Your task to perform on an android device: Is it going to rain today? Image 0: 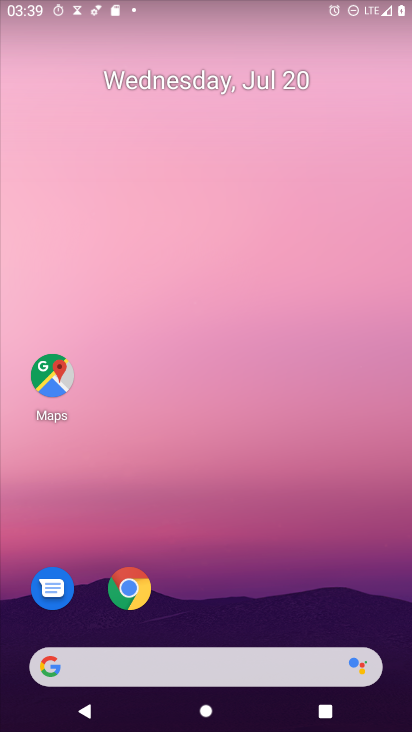
Step 0: drag from (210, 633) to (126, 7)
Your task to perform on an android device: Is it going to rain today? Image 1: 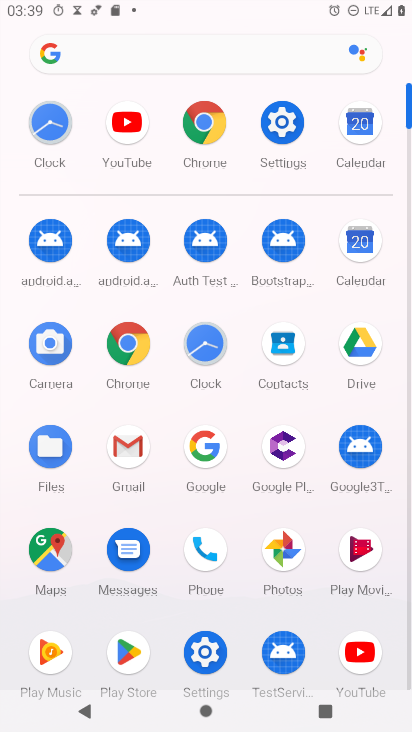
Step 1: click (201, 451)
Your task to perform on an android device: Is it going to rain today? Image 2: 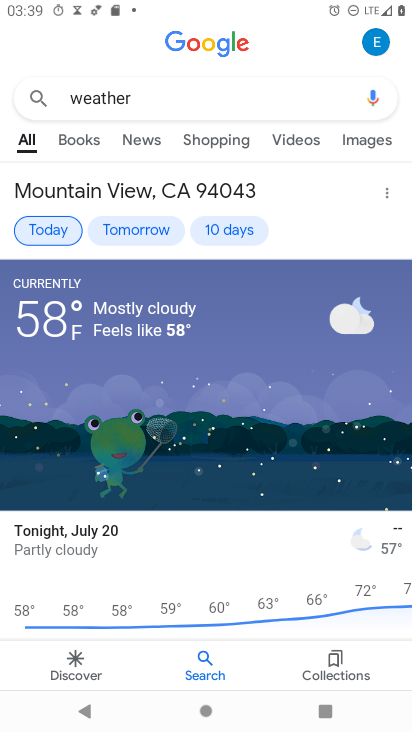
Step 2: click (143, 95)
Your task to perform on an android device: Is it going to rain today? Image 3: 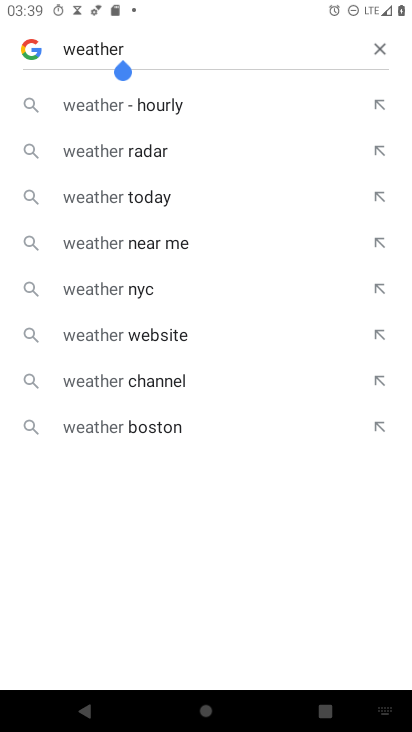
Step 3: click (373, 48)
Your task to perform on an android device: Is it going to rain today? Image 4: 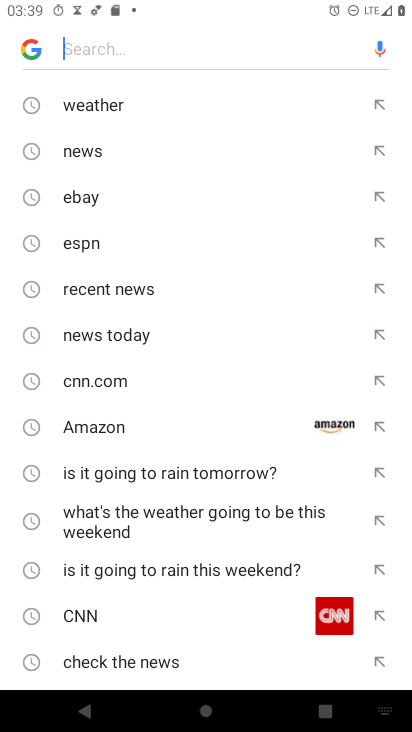
Step 4: click (43, 101)
Your task to perform on an android device: Is it going to rain today? Image 5: 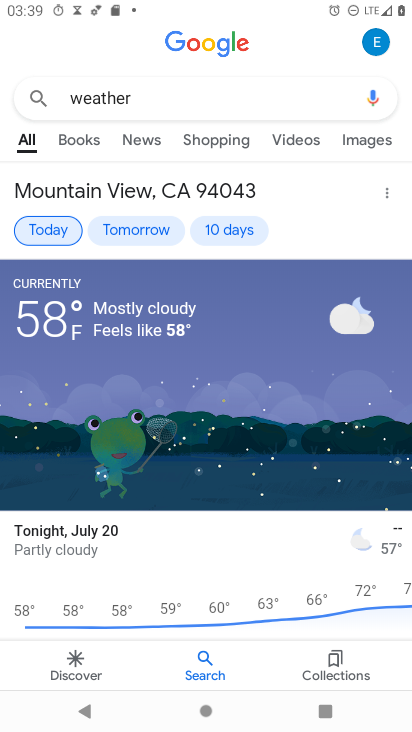
Step 5: click (65, 230)
Your task to perform on an android device: Is it going to rain today? Image 6: 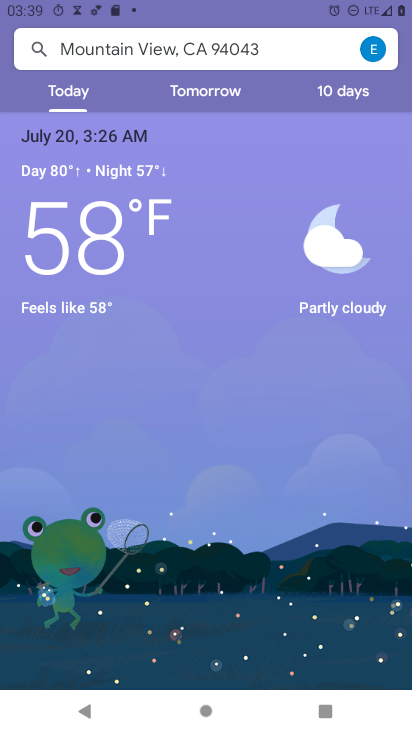
Step 6: task complete